Your task to perform on an android device: Go to notification settings Image 0: 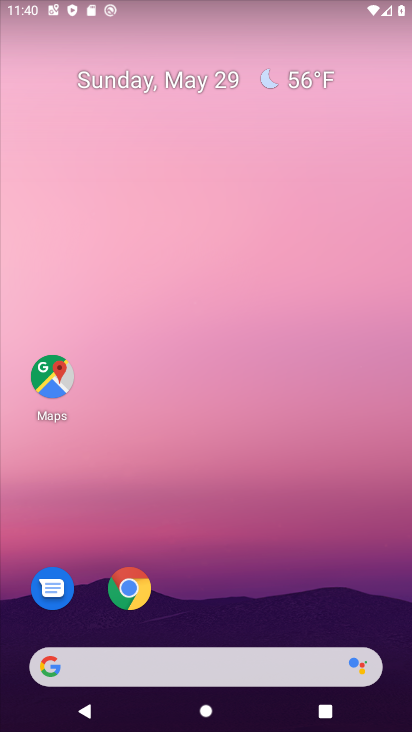
Step 0: drag from (278, 433) to (256, 1)
Your task to perform on an android device: Go to notification settings Image 1: 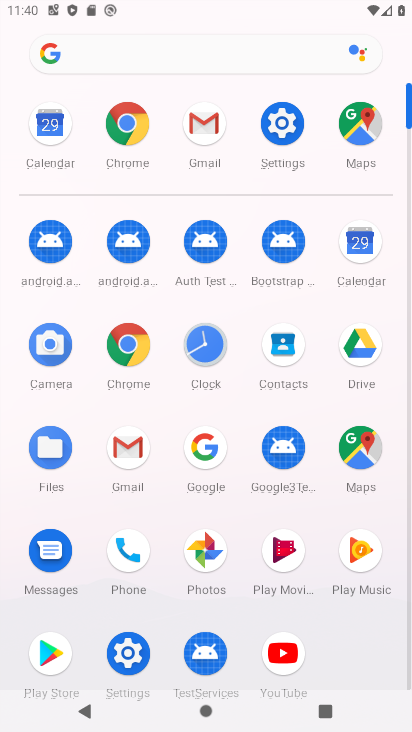
Step 1: click (273, 133)
Your task to perform on an android device: Go to notification settings Image 2: 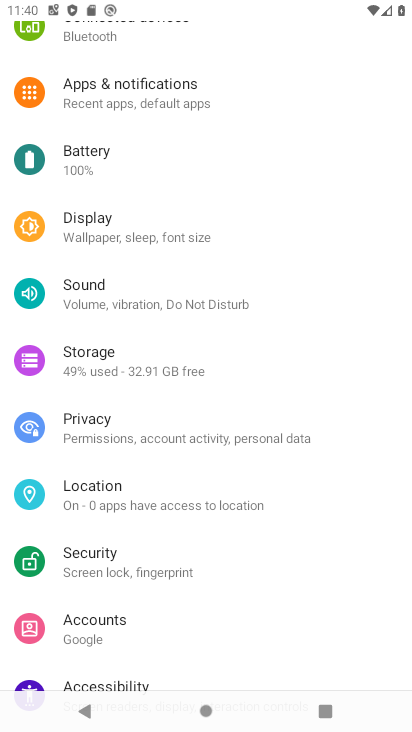
Step 2: click (146, 121)
Your task to perform on an android device: Go to notification settings Image 3: 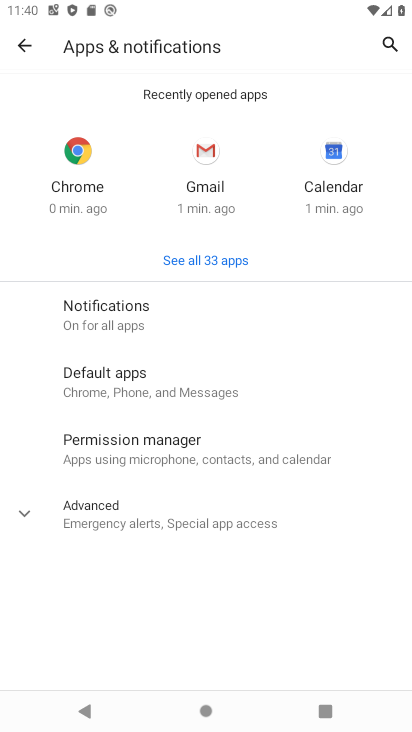
Step 3: click (113, 315)
Your task to perform on an android device: Go to notification settings Image 4: 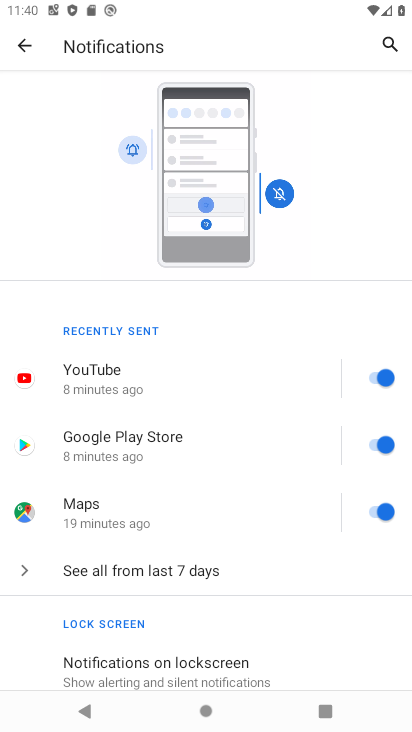
Step 4: task complete